Your task to perform on an android device: turn on data saver in the chrome app Image 0: 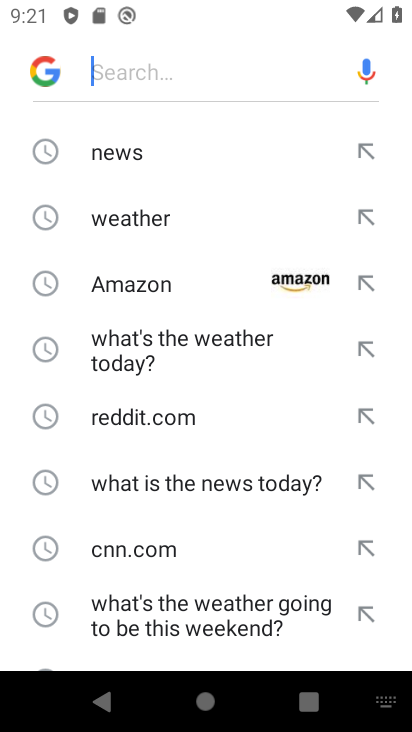
Step 0: press home button
Your task to perform on an android device: turn on data saver in the chrome app Image 1: 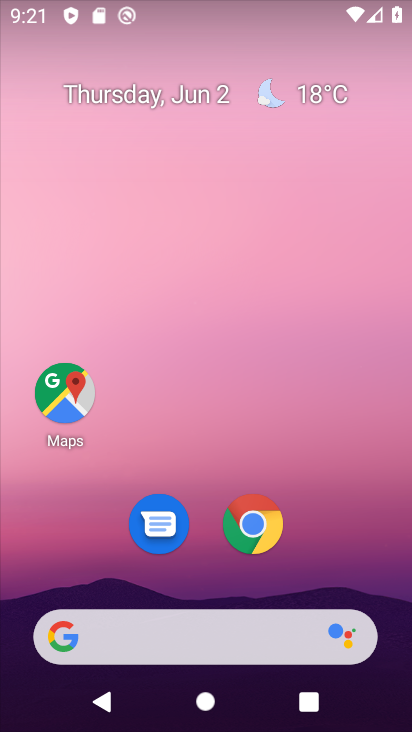
Step 1: click (254, 528)
Your task to perform on an android device: turn on data saver in the chrome app Image 2: 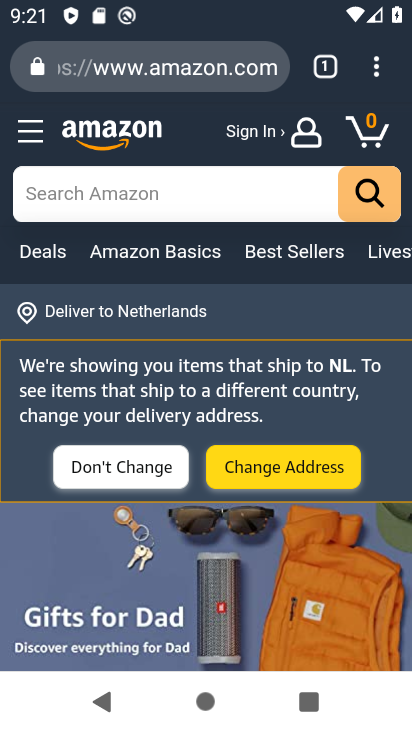
Step 2: click (380, 76)
Your task to perform on an android device: turn on data saver in the chrome app Image 3: 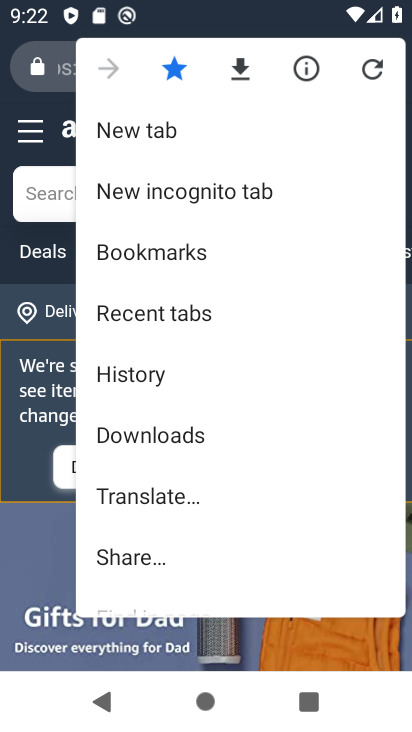
Step 3: drag from (281, 521) to (230, 111)
Your task to perform on an android device: turn on data saver in the chrome app Image 4: 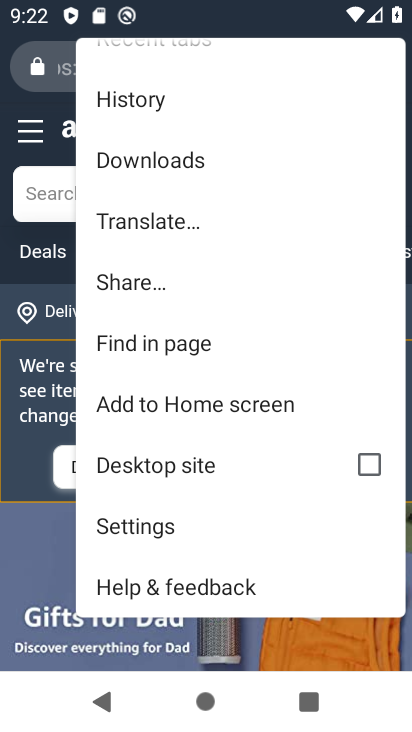
Step 4: click (172, 514)
Your task to perform on an android device: turn on data saver in the chrome app Image 5: 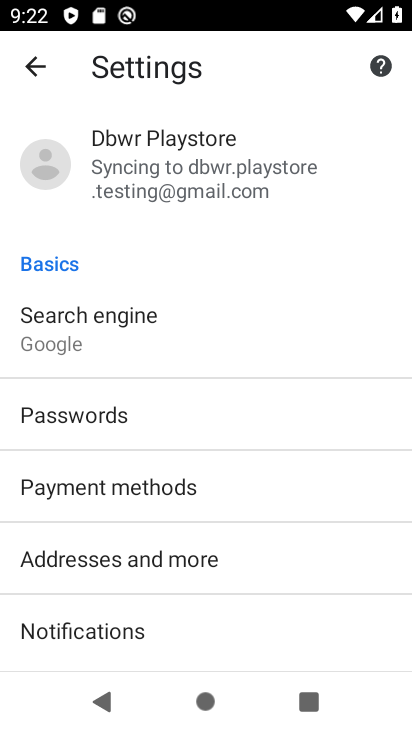
Step 5: drag from (253, 592) to (230, 121)
Your task to perform on an android device: turn on data saver in the chrome app Image 6: 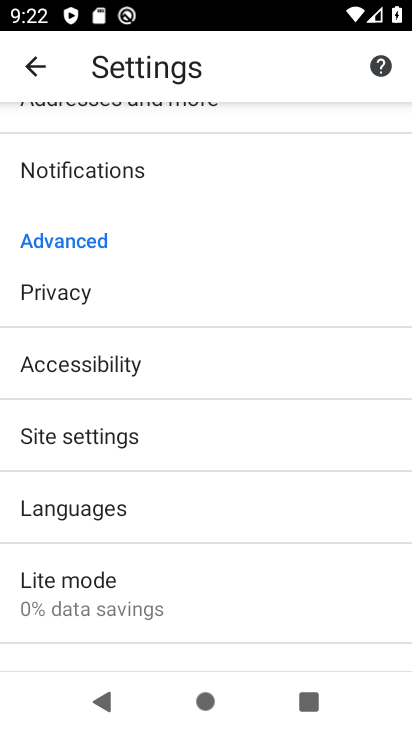
Step 6: click (229, 573)
Your task to perform on an android device: turn on data saver in the chrome app Image 7: 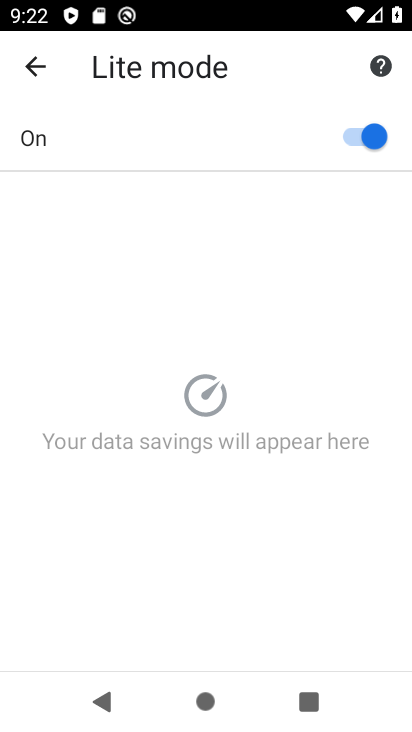
Step 7: task complete